Your task to perform on an android device: Show the shopping cart on amazon. Search for apple airpods pro on amazon, select the first entry, add it to the cart, then select checkout. Image 0: 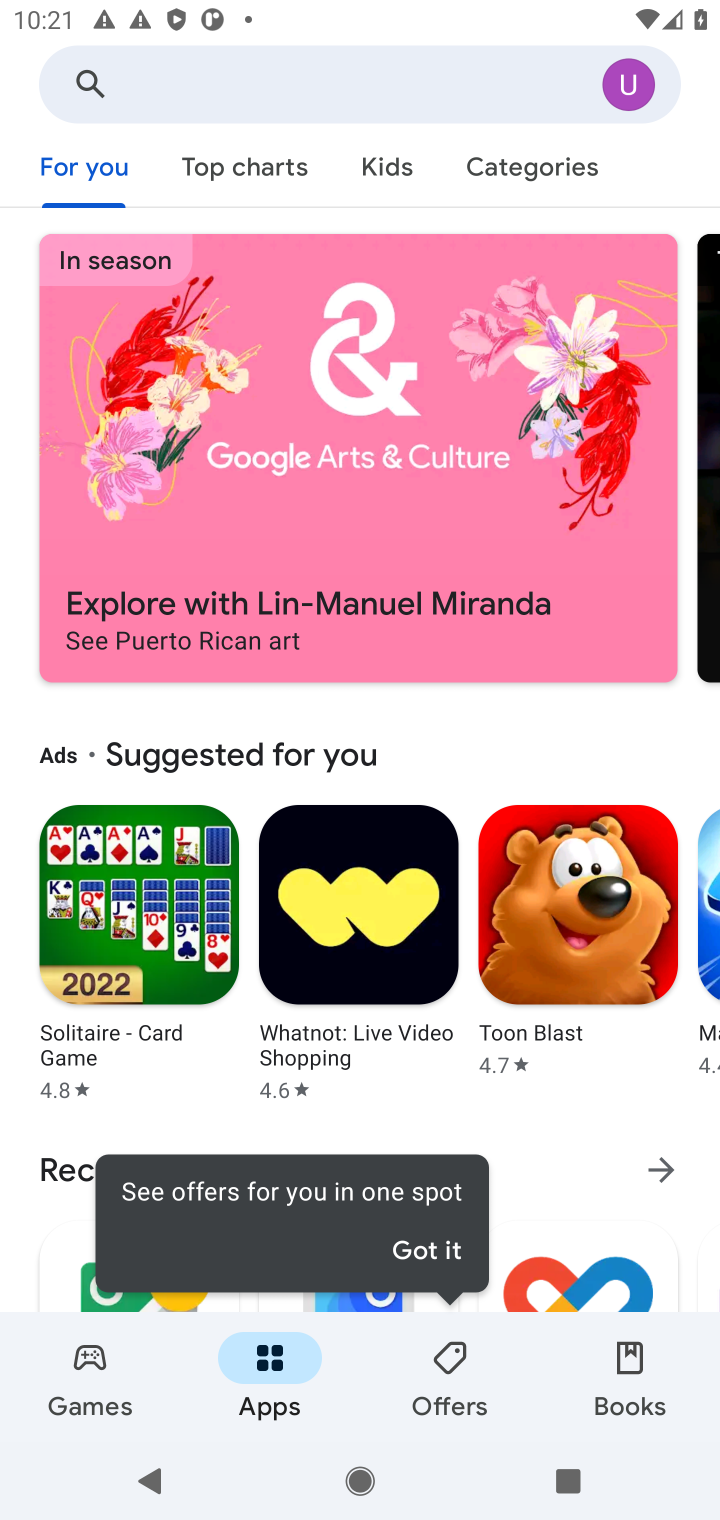
Step 0: press home button
Your task to perform on an android device: Show the shopping cart on amazon. Search for apple airpods pro on amazon, select the first entry, add it to the cart, then select checkout. Image 1: 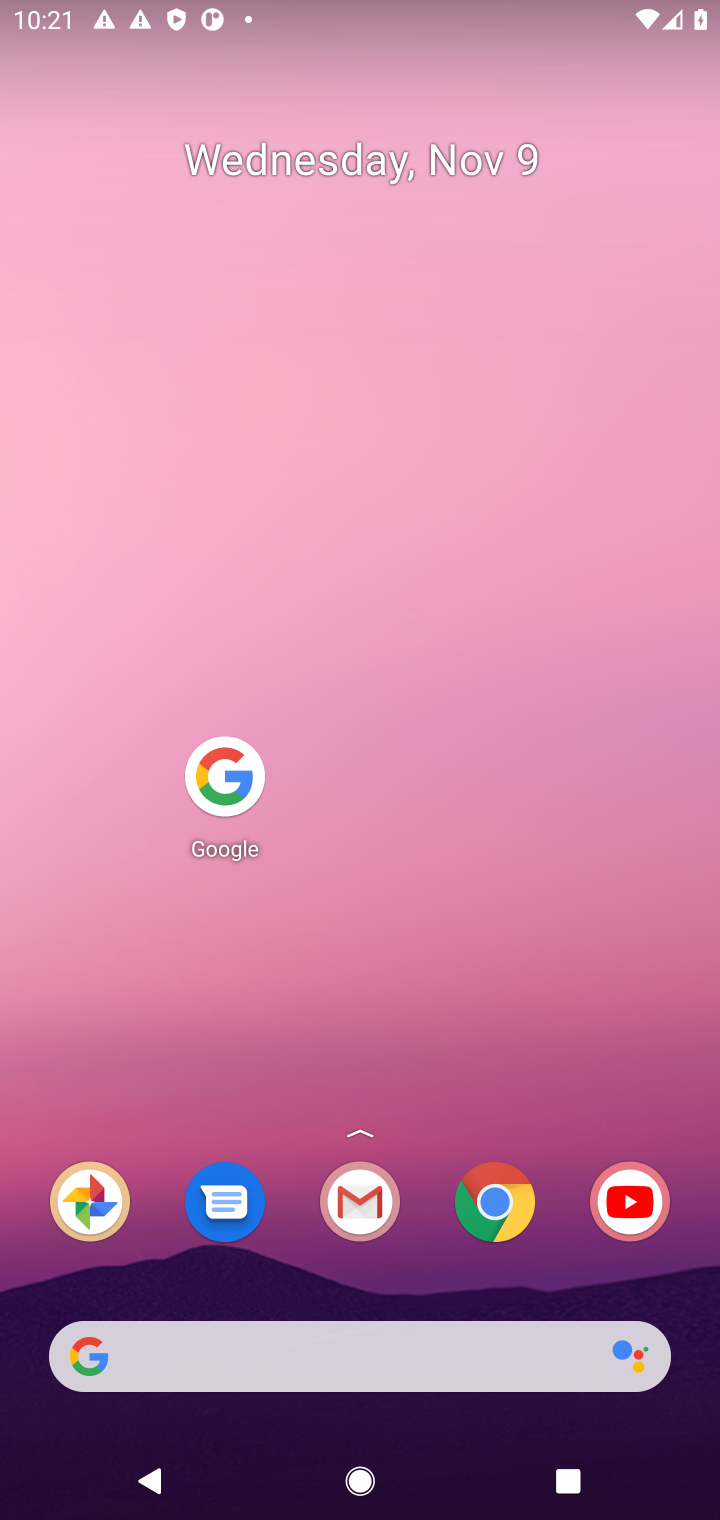
Step 1: click (216, 774)
Your task to perform on an android device: Show the shopping cart on amazon. Search for apple airpods pro on amazon, select the first entry, add it to the cart, then select checkout. Image 2: 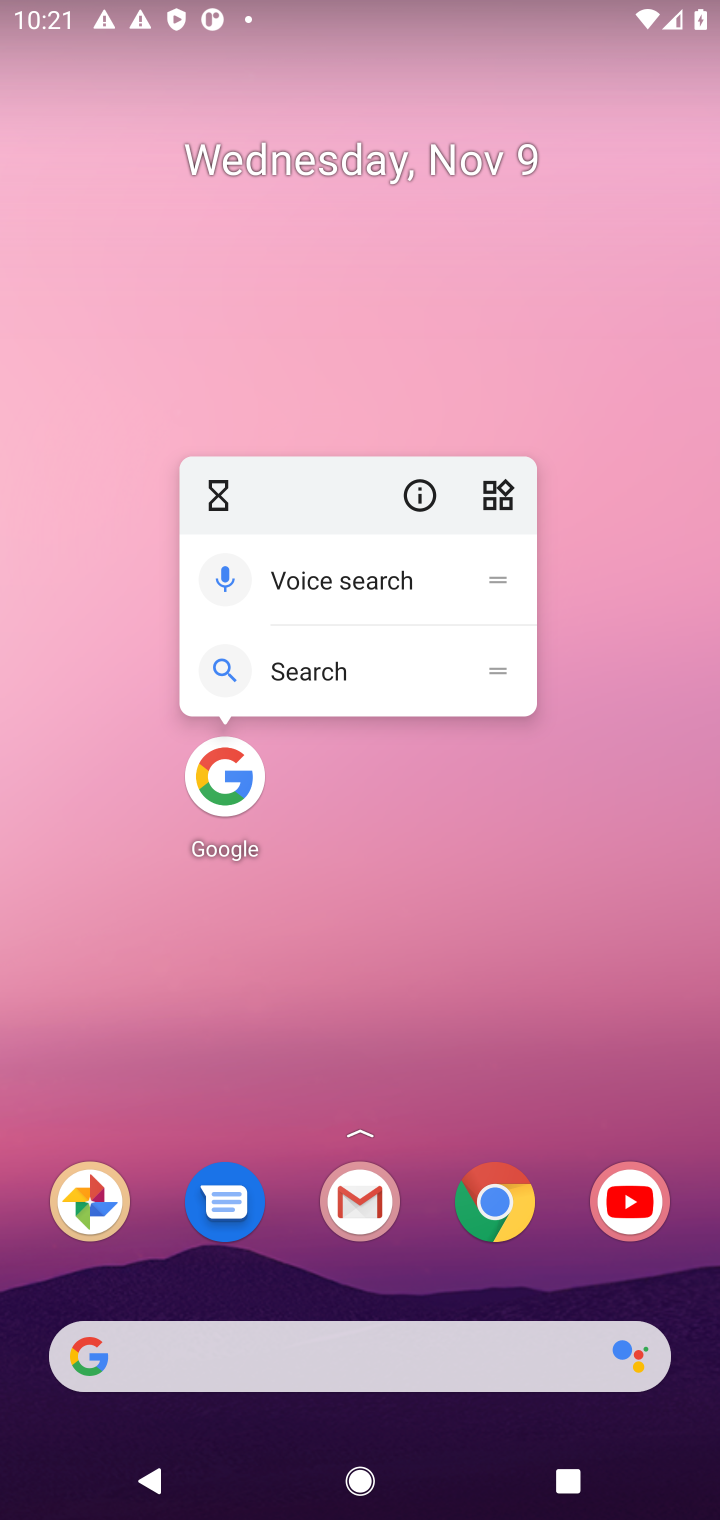
Step 2: click (213, 780)
Your task to perform on an android device: Show the shopping cart on amazon. Search for apple airpods pro on amazon, select the first entry, add it to the cart, then select checkout. Image 3: 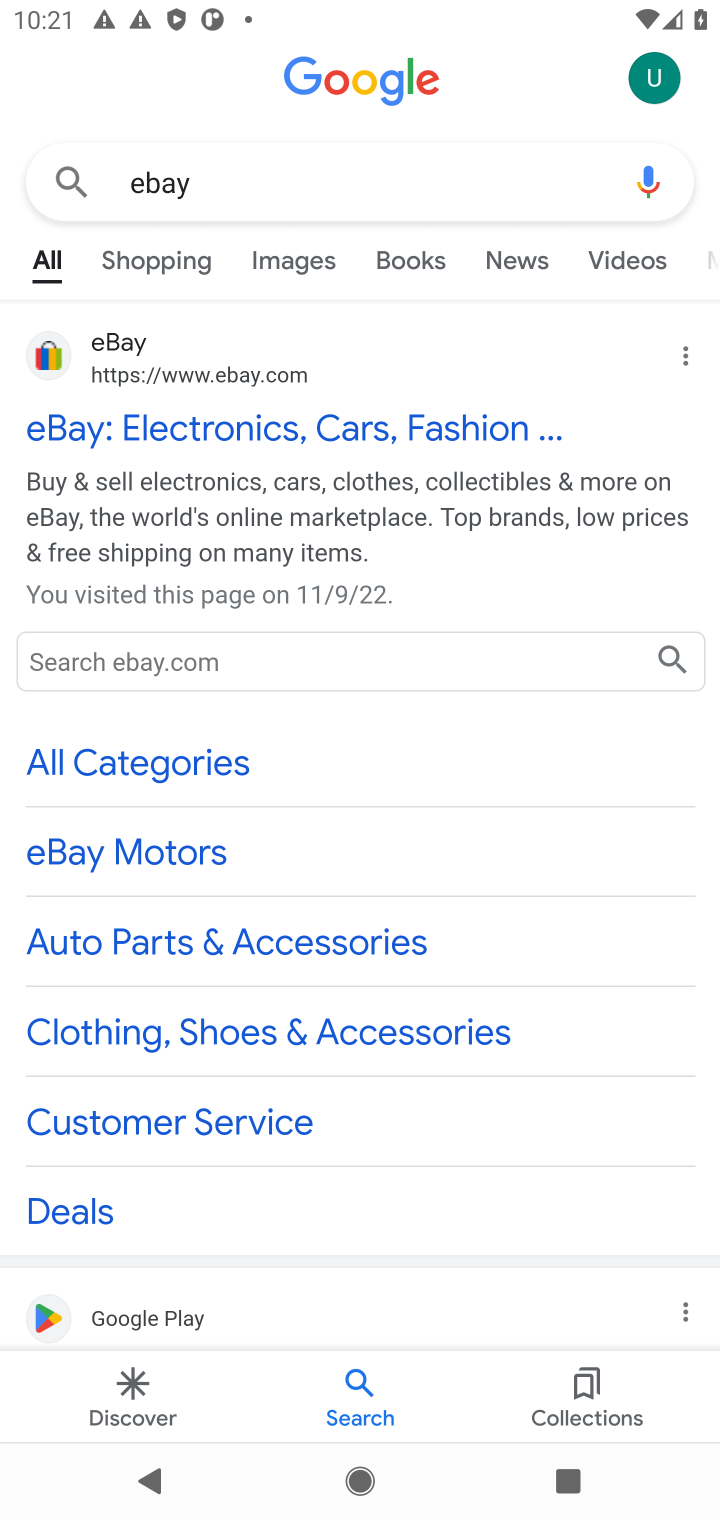
Step 3: click (249, 192)
Your task to perform on an android device: Show the shopping cart on amazon. Search for apple airpods pro on amazon, select the first entry, add it to the cart, then select checkout. Image 4: 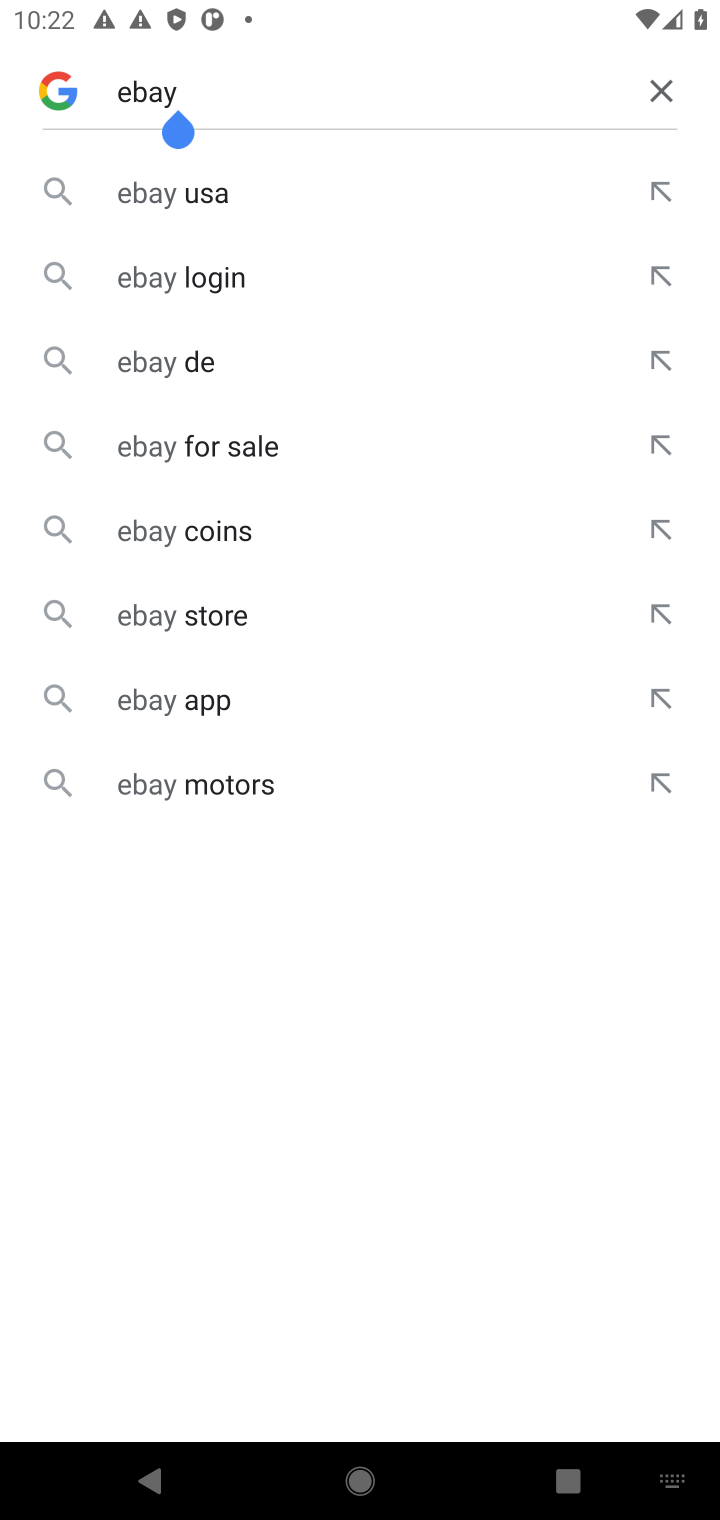
Step 4: click (656, 78)
Your task to perform on an android device: Show the shopping cart on amazon. Search for apple airpods pro on amazon, select the first entry, add it to the cart, then select checkout. Image 5: 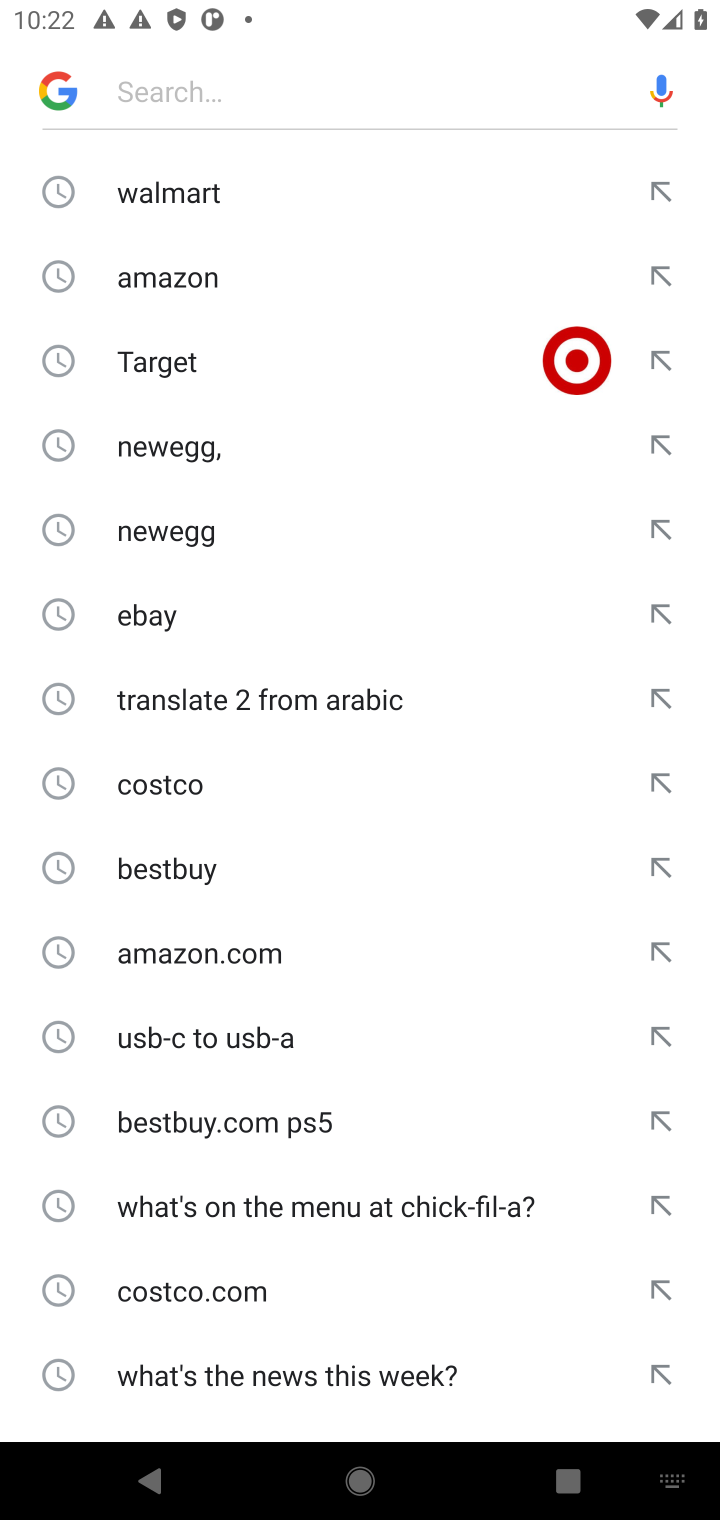
Step 5: click (137, 264)
Your task to perform on an android device: Show the shopping cart on amazon. Search for apple airpods pro on amazon, select the first entry, add it to the cart, then select checkout. Image 6: 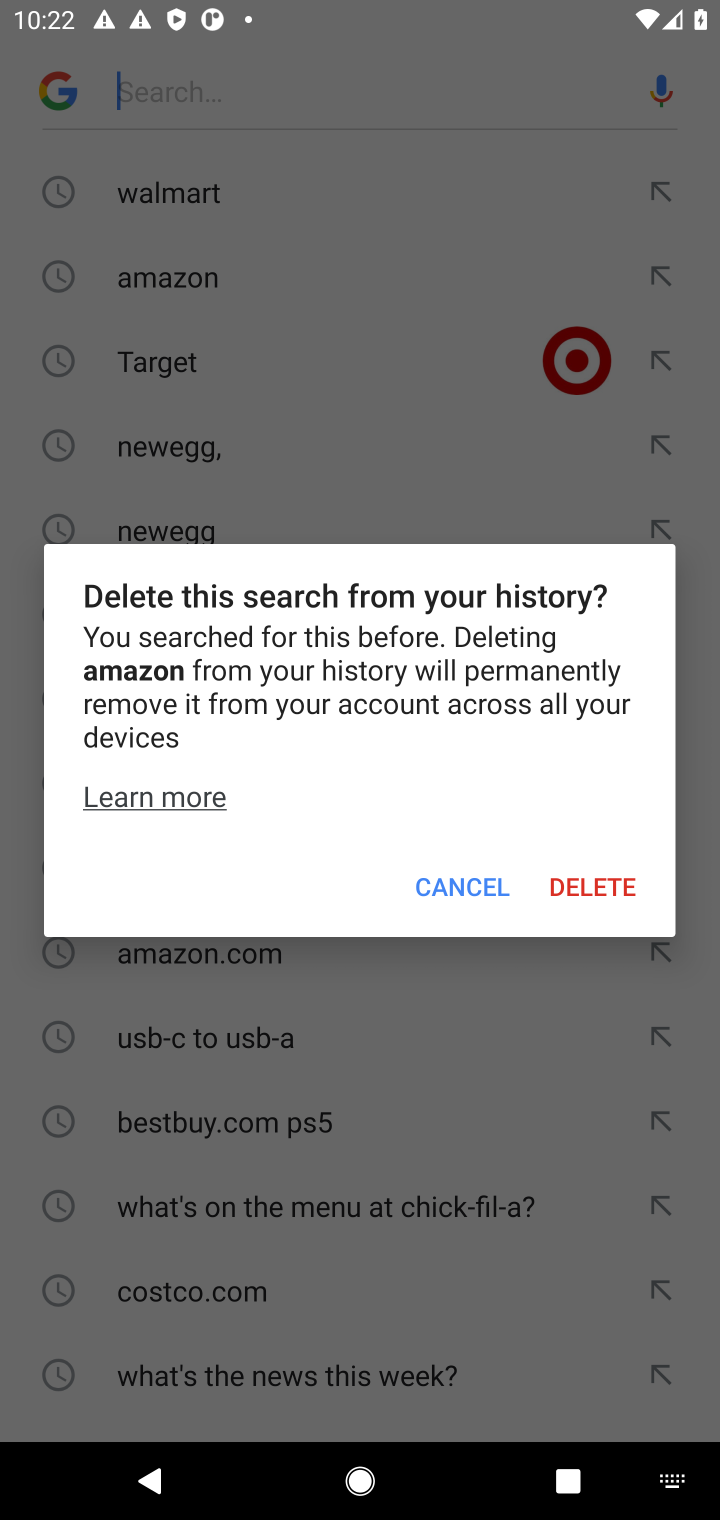
Step 6: click (154, 279)
Your task to perform on an android device: Show the shopping cart on amazon. Search for apple airpods pro on amazon, select the first entry, add it to the cart, then select checkout. Image 7: 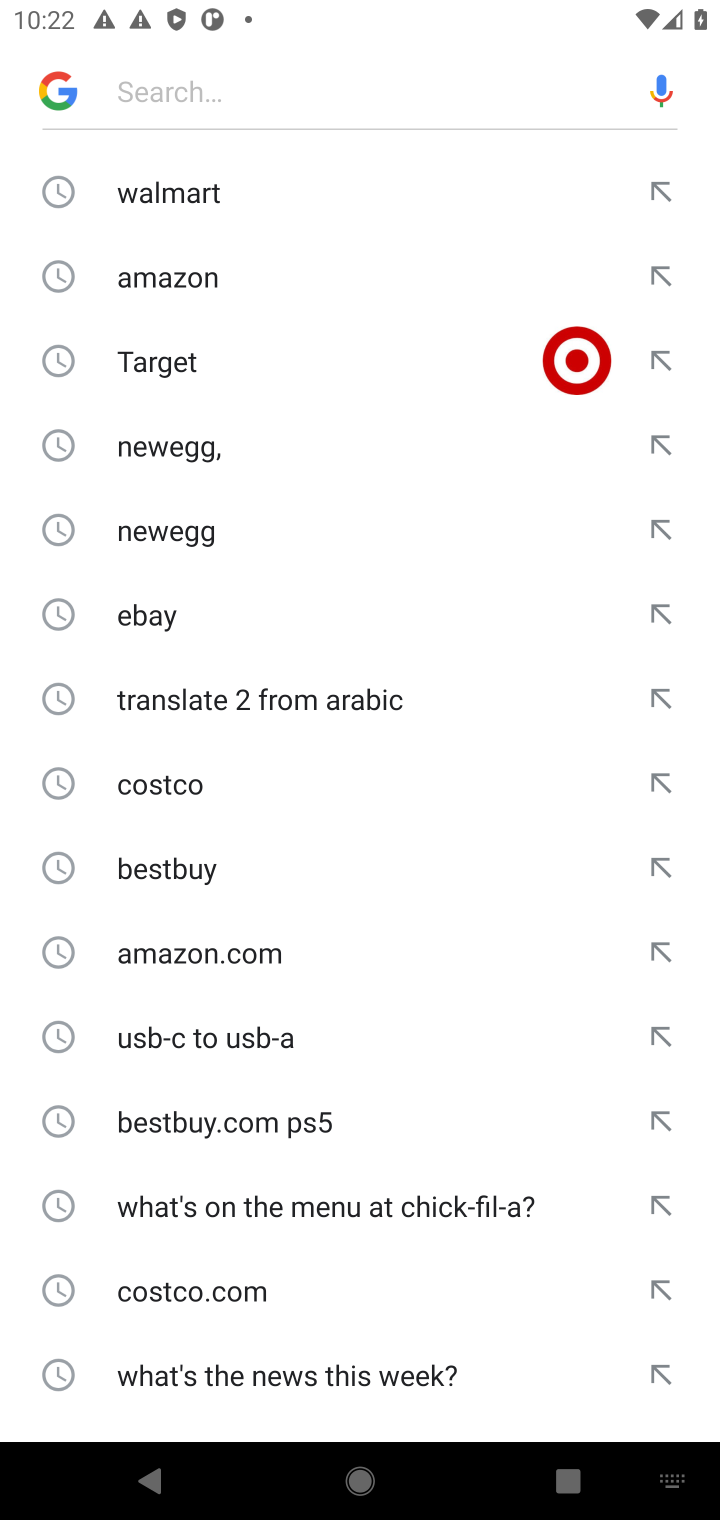
Step 7: click (154, 277)
Your task to perform on an android device: Show the shopping cart on amazon. Search for apple airpods pro on amazon, select the first entry, add it to the cart, then select checkout. Image 8: 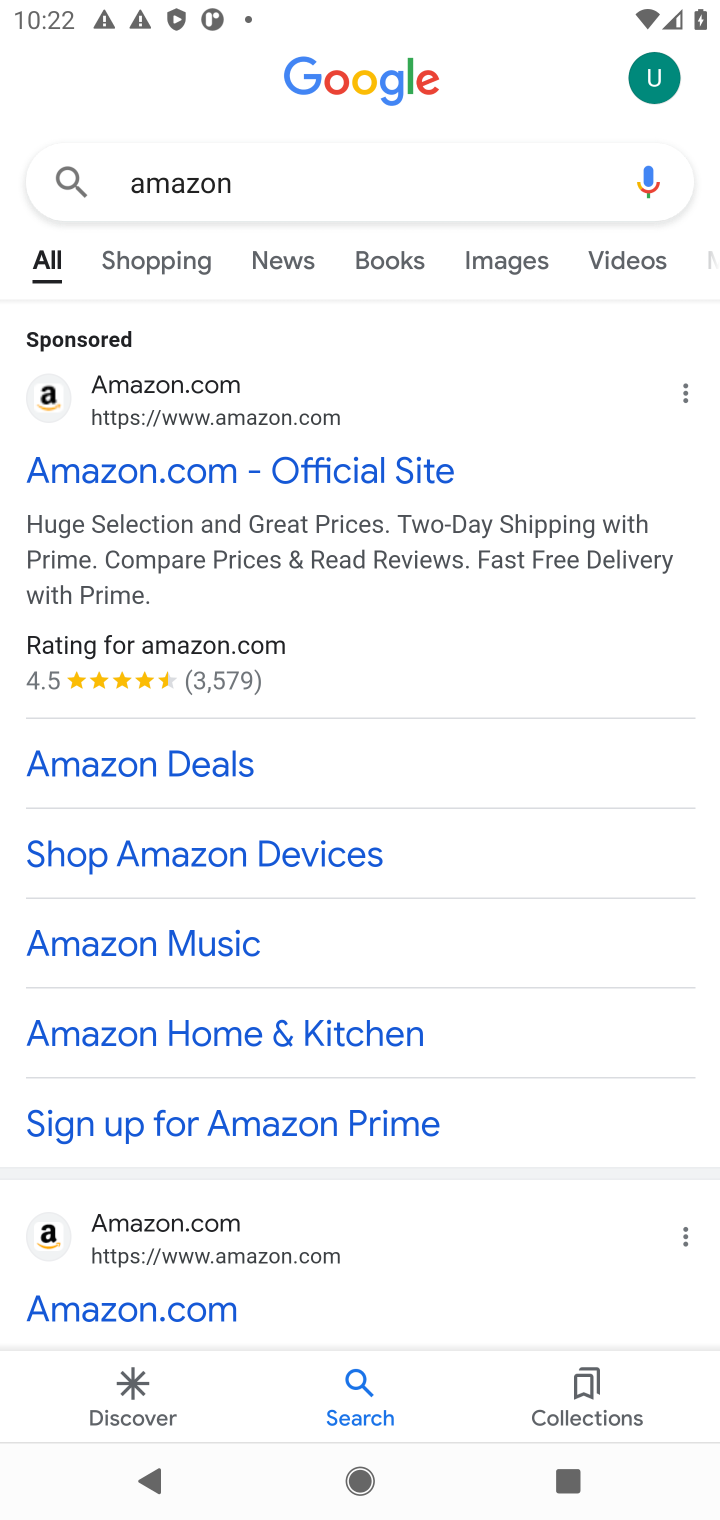
Step 8: click (194, 455)
Your task to perform on an android device: Show the shopping cart on amazon. Search for apple airpods pro on amazon, select the first entry, add it to the cart, then select checkout. Image 9: 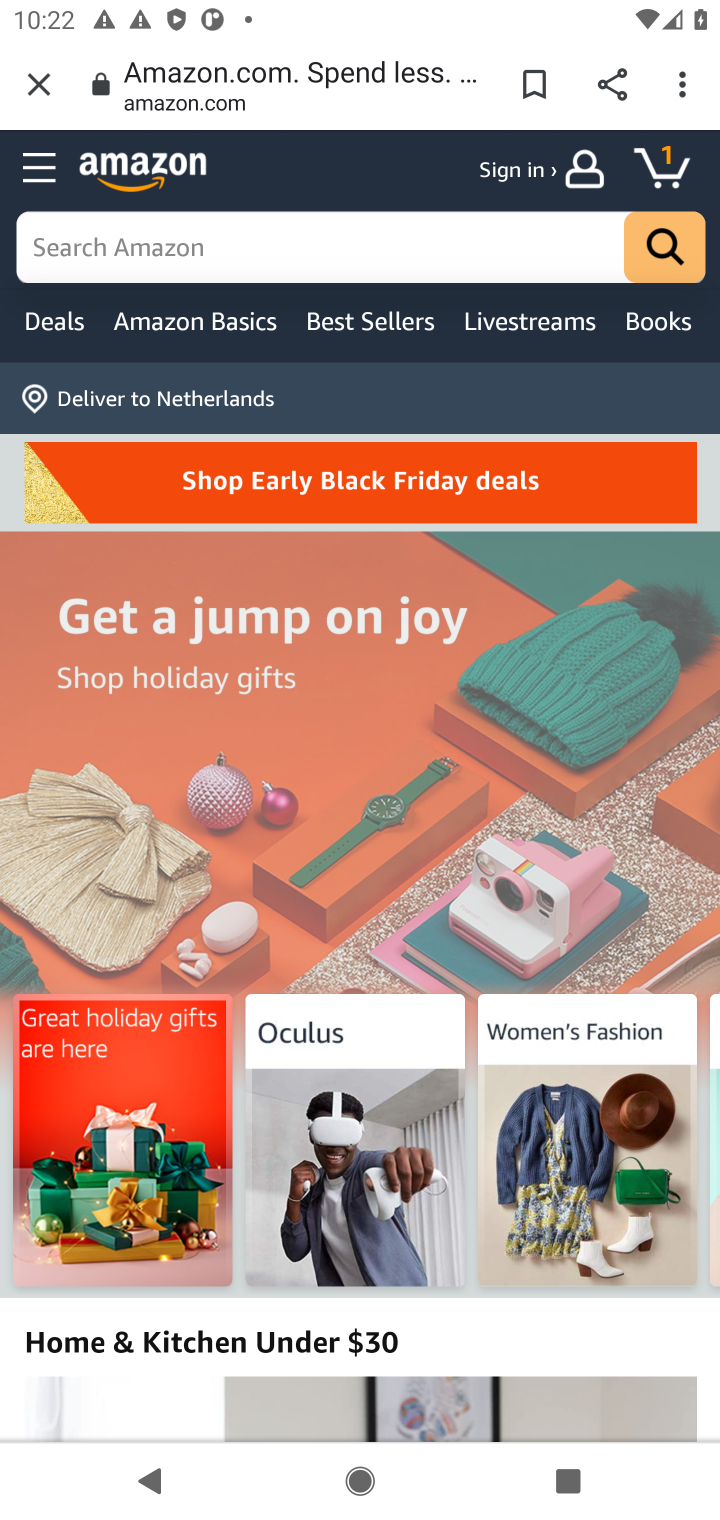
Step 9: click (197, 245)
Your task to perform on an android device: Show the shopping cart on amazon. Search for apple airpods pro on amazon, select the first entry, add it to the cart, then select checkout. Image 10: 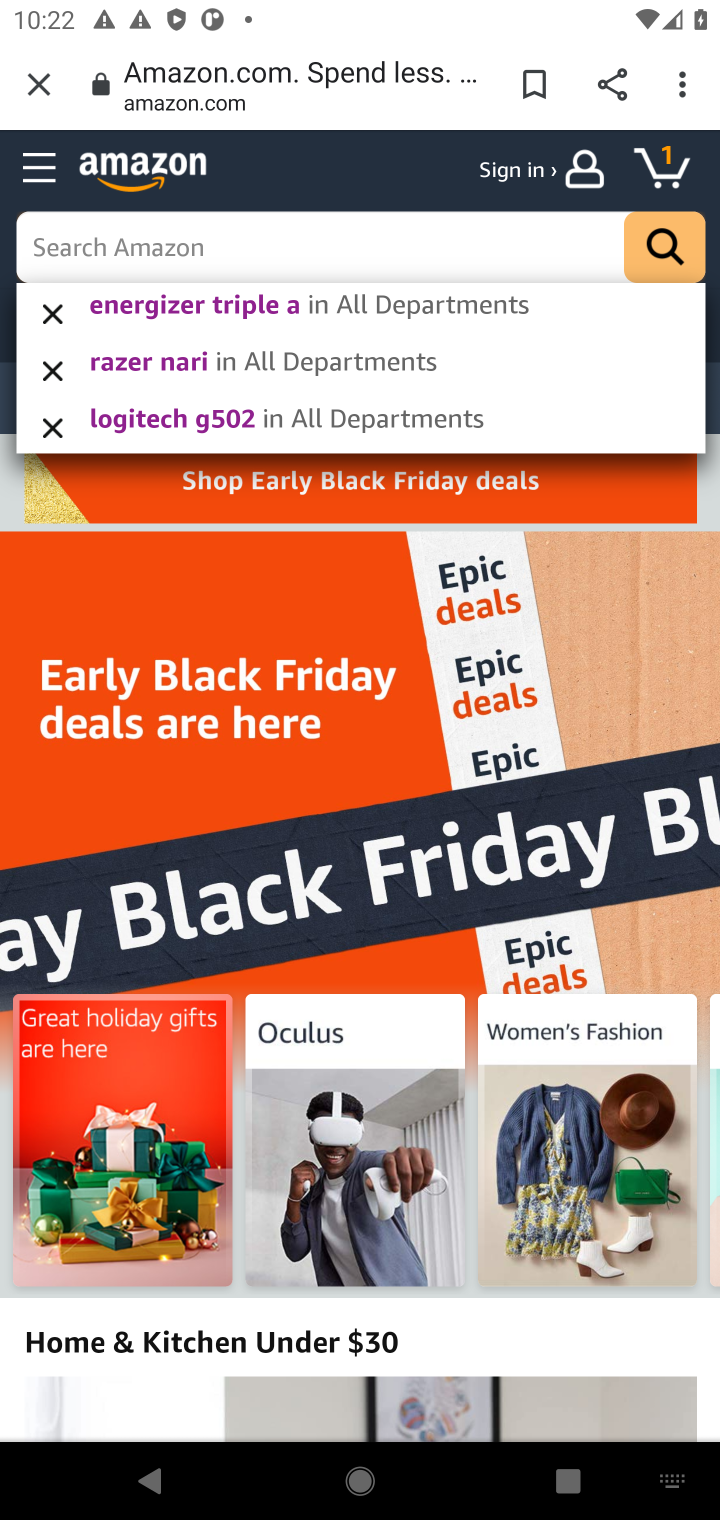
Step 10: type "apple airpods pro"
Your task to perform on an android device: Show the shopping cart on amazon. Search for apple airpods pro on amazon, select the first entry, add it to the cart, then select checkout. Image 11: 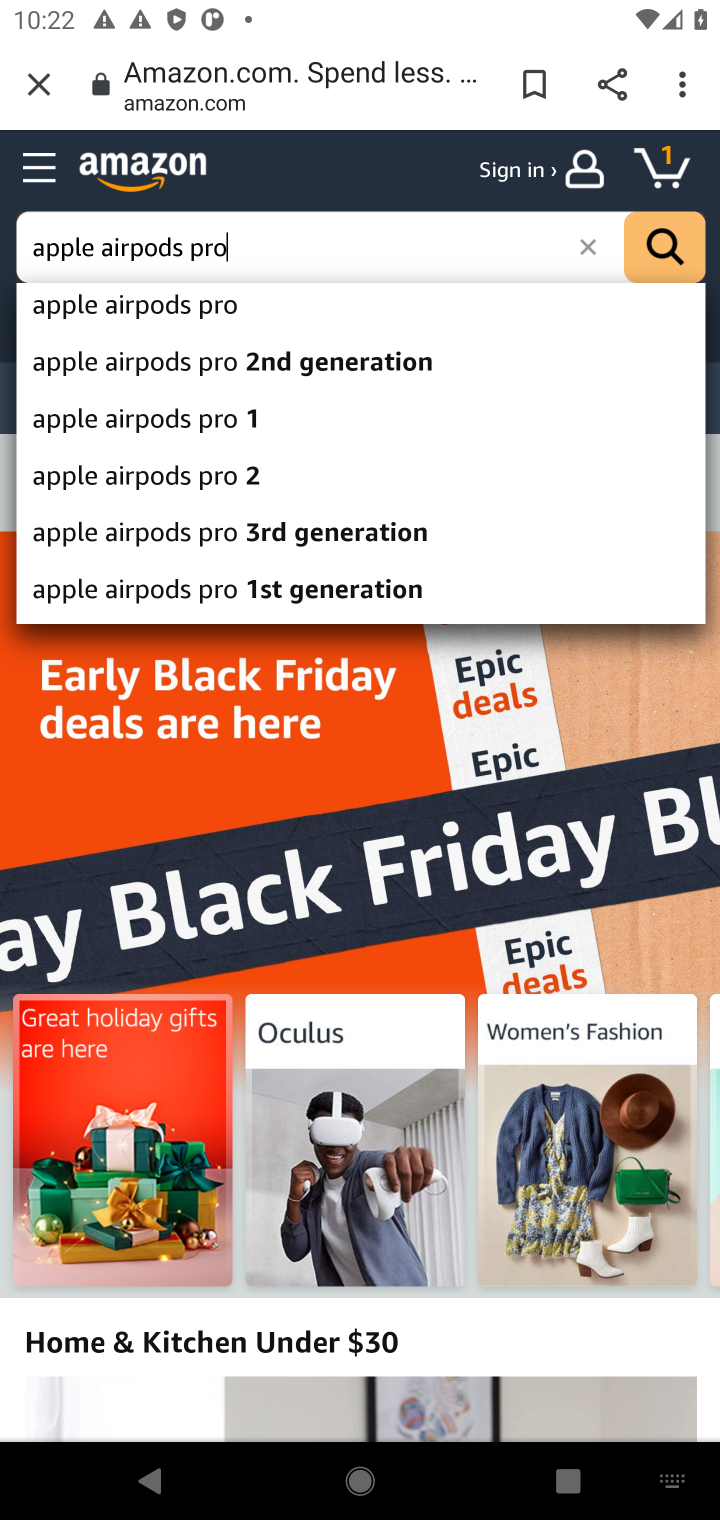
Step 11: press enter
Your task to perform on an android device: Show the shopping cart on amazon. Search for apple airpods pro on amazon, select the first entry, add it to the cart, then select checkout. Image 12: 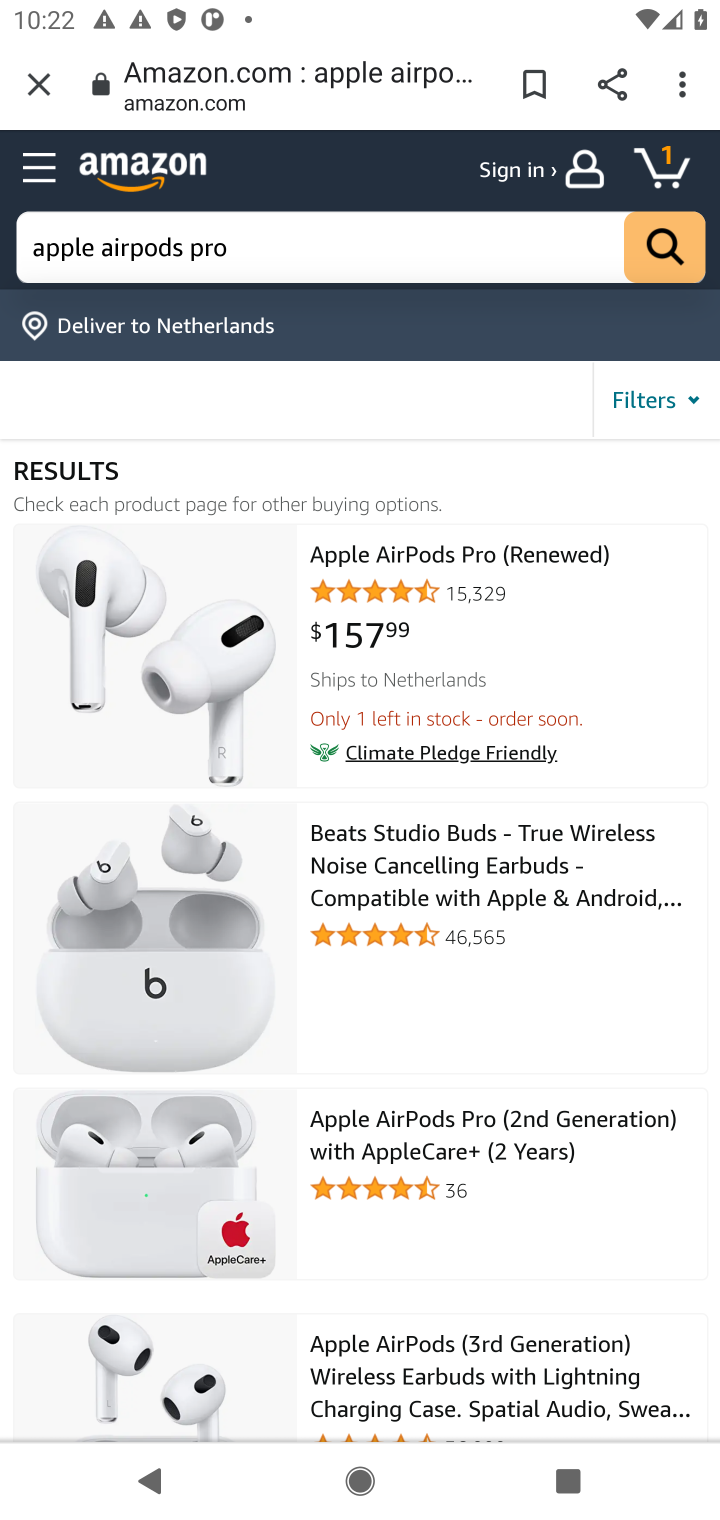
Step 12: click (498, 657)
Your task to perform on an android device: Show the shopping cart on amazon. Search for apple airpods pro on amazon, select the first entry, add it to the cart, then select checkout. Image 13: 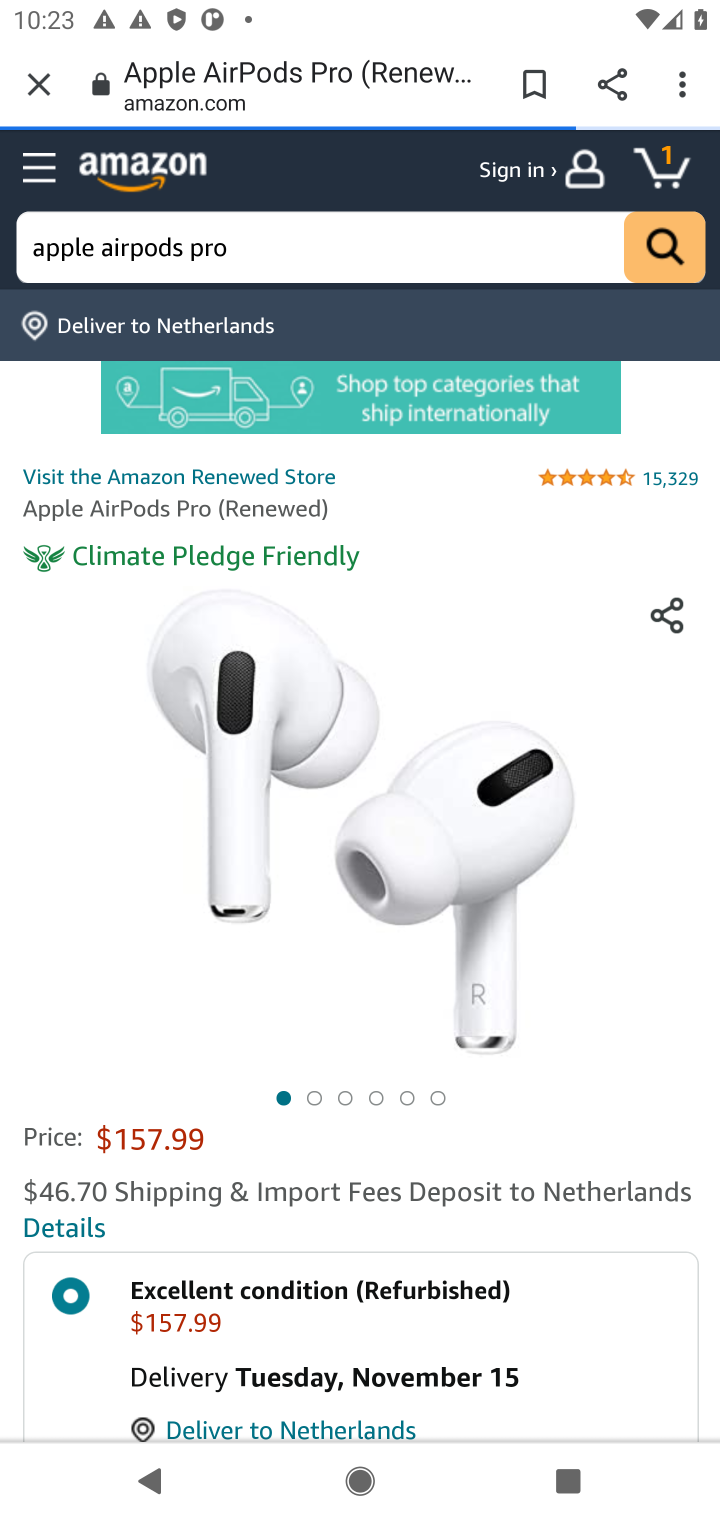
Step 13: drag from (550, 1376) to (541, 285)
Your task to perform on an android device: Show the shopping cart on amazon. Search for apple airpods pro on amazon, select the first entry, add it to the cart, then select checkout. Image 14: 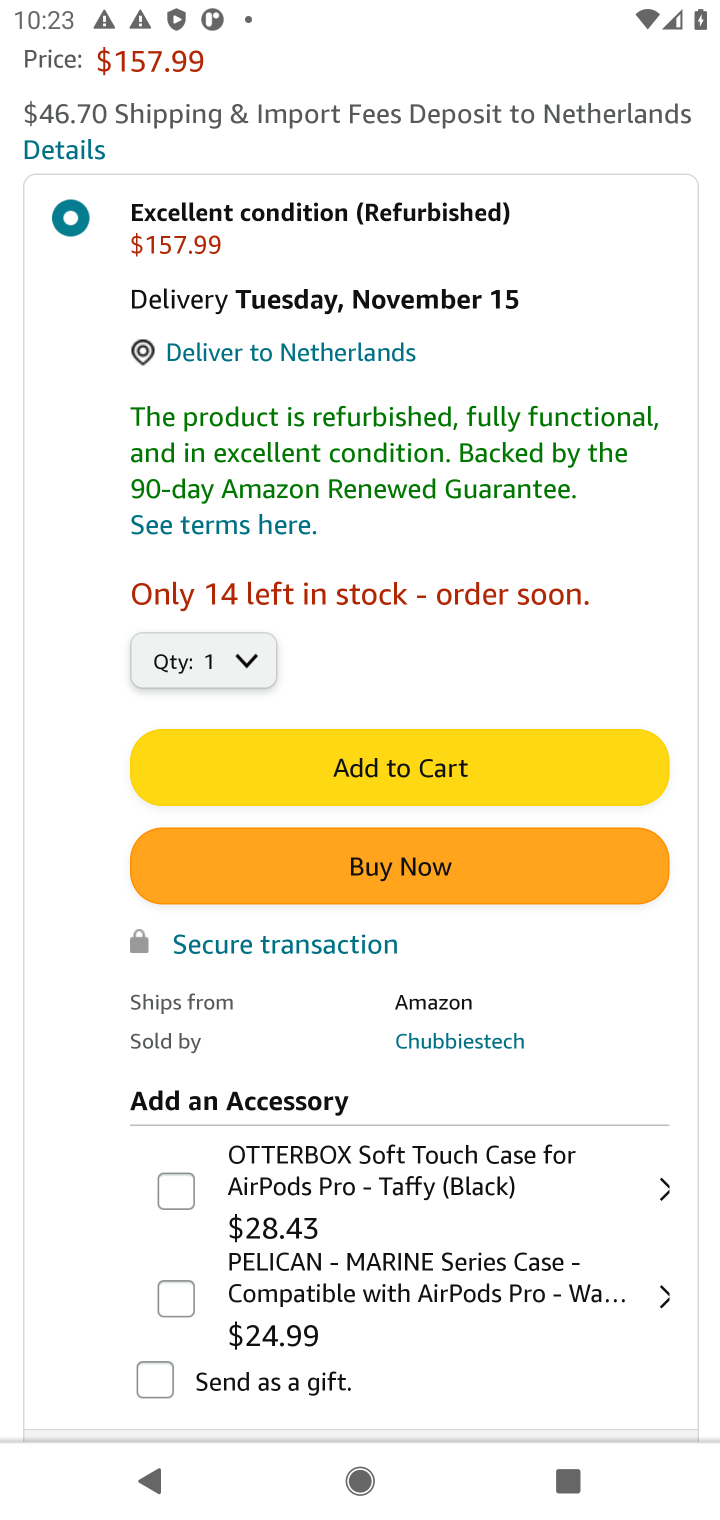
Step 14: click (356, 756)
Your task to perform on an android device: Show the shopping cart on amazon. Search for apple airpods pro on amazon, select the first entry, add it to the cart, then select checkout. Image 15: 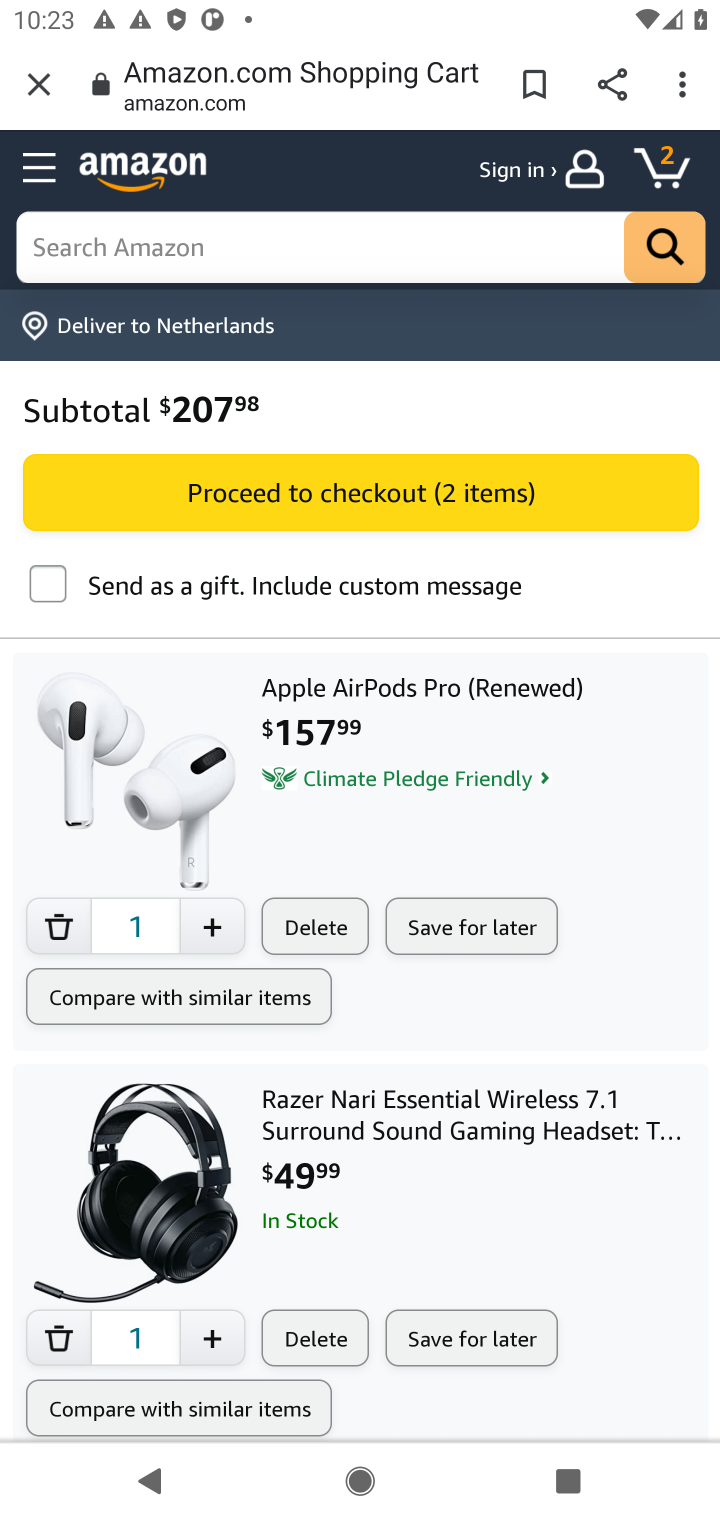
Step 15: click (326, 1335)
Your task to perform on an android device: Show the shopping cart on amazon. Search for apple airpods pro on amazon, select the first entry, add it to the cart, then select checkout. Image 16: 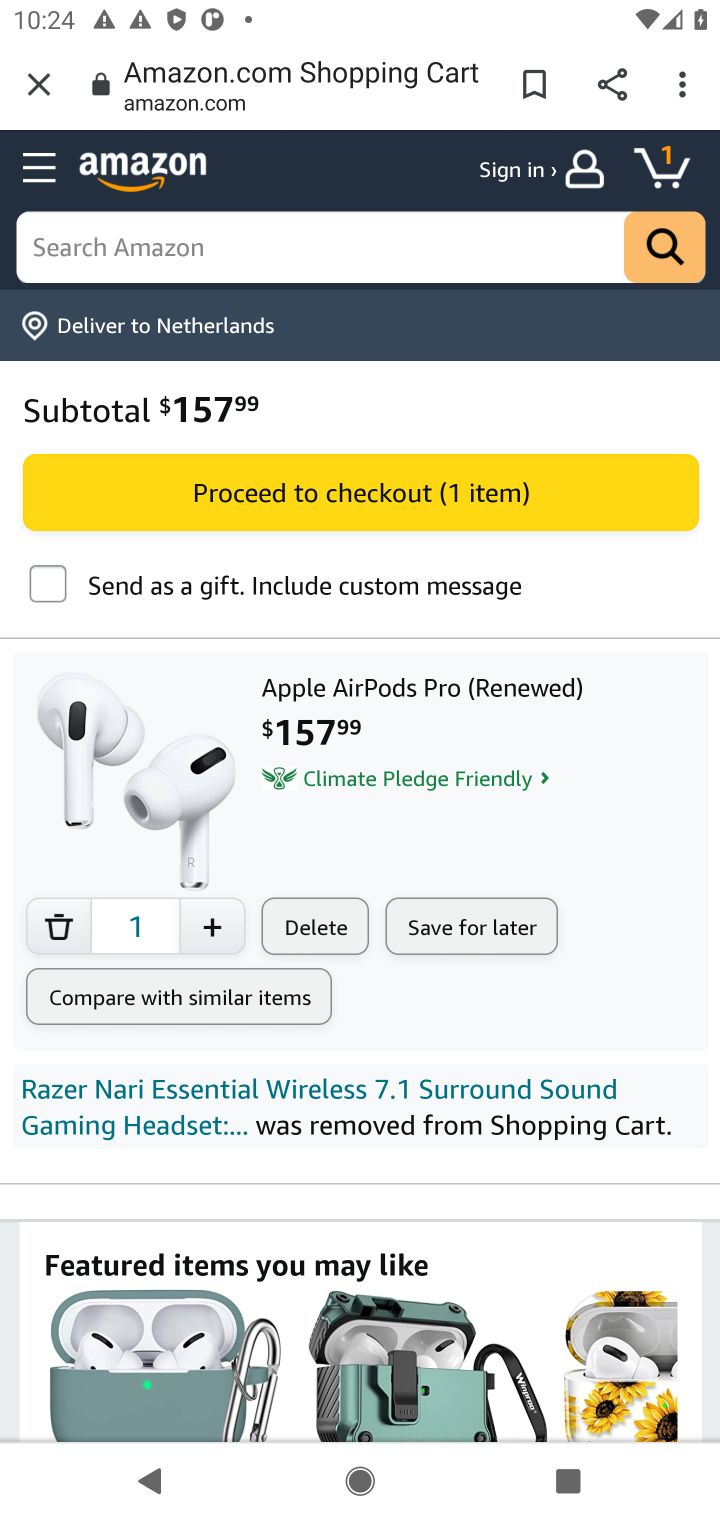
Step 16: click (362, 489)
Your task to perform on an android device: Show the shopping cart on amazon. Search for apple airpods pro on amazon, select the first entry, add it to the cart, then select checkout. Image 17: 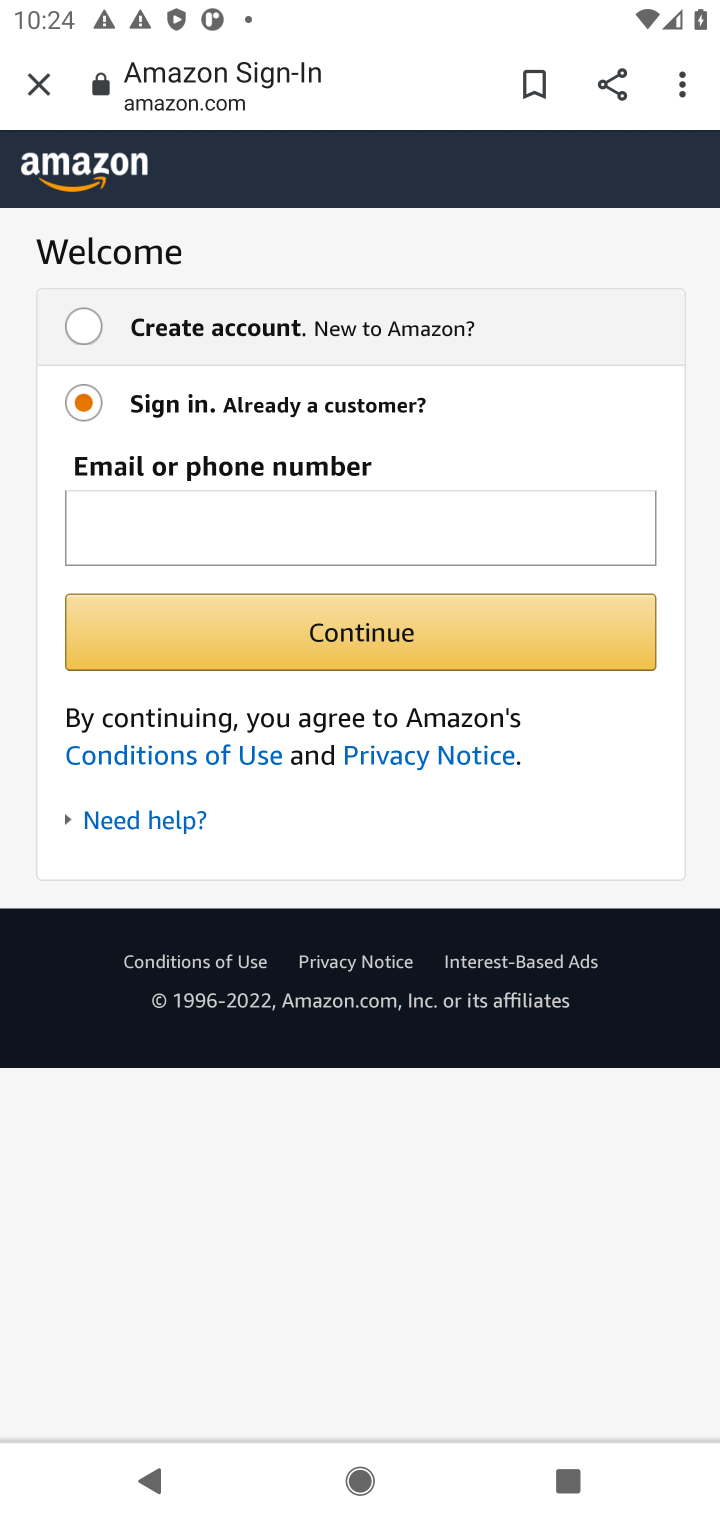
Step 17: task complete